Your task to perform on an android device: What's on my calendar tomorrow? Image 0: 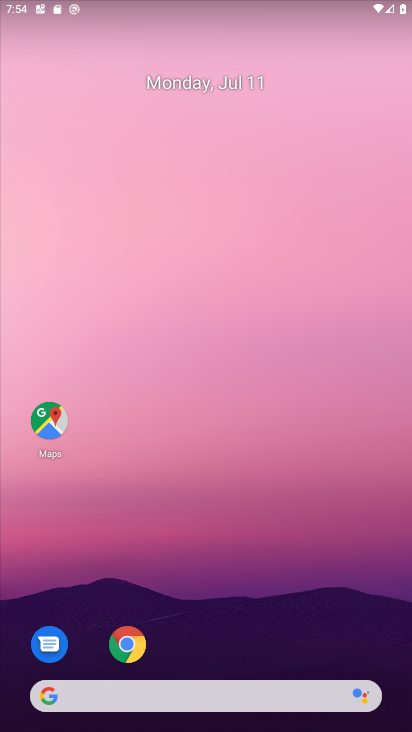
Step 0: drag from (288, 652) to (271, 206)
Your task to perform on an android device: What's on my calendar tomorrow? Image 1: 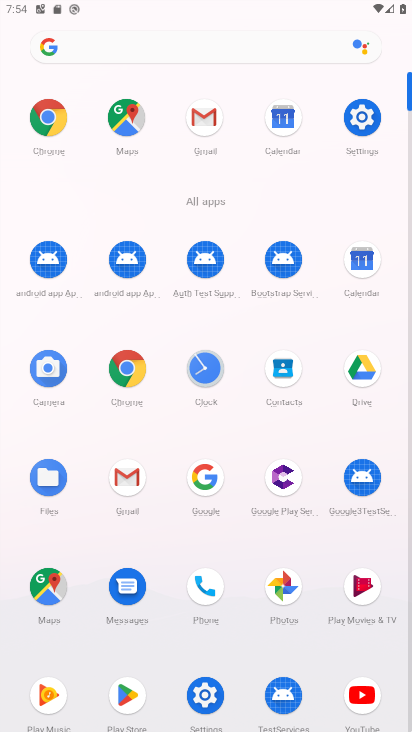
Step 1: click (350, 246)
Your task to perform on an android device: What's on my calendar tomorrow? Image 2: 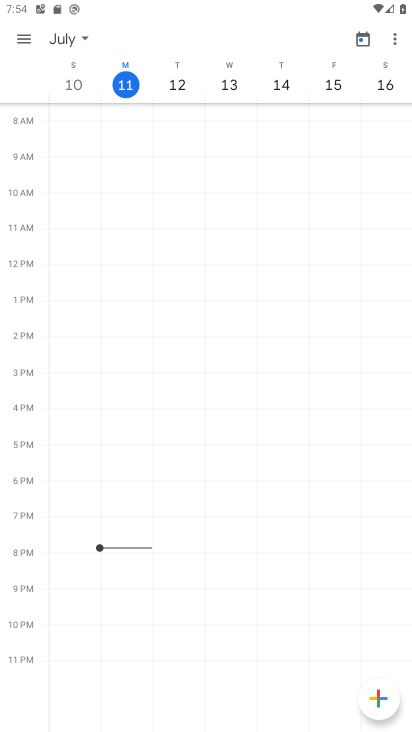
Step 2: click (223, 86)
Your task to perform on an android device: What's on my calendar tomorrow? Image 3: 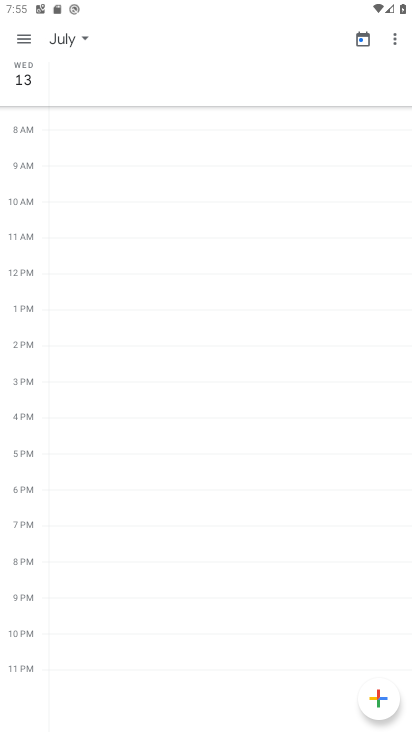
Step 3: task complete